Your task to perform on an android device: turn on showing notifications on the lock screen Image 0: 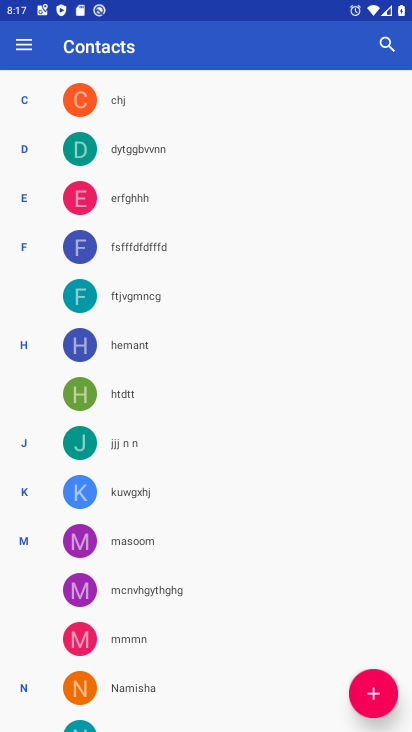
Step 0: press home button
Your task to perform on an android device: turn on showing notifications on the lock screen Image 1: 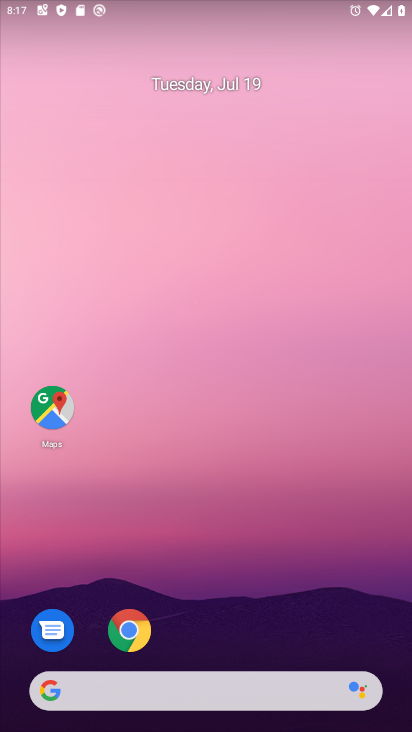
Step 1: drag from (177, 566) to (228, 182)
Your task to perform on an android device: turn on showing notifications on the lock screen Image 2: 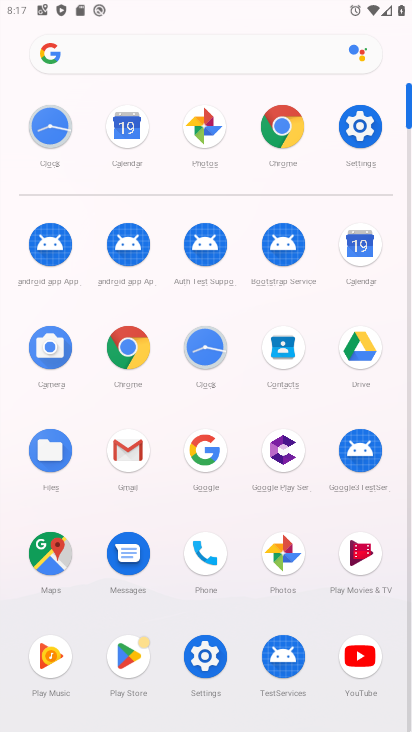
Step 2: click (355, 138)
Your task to perform on an android device: turn on showing notifications on the lock screen Image 3: 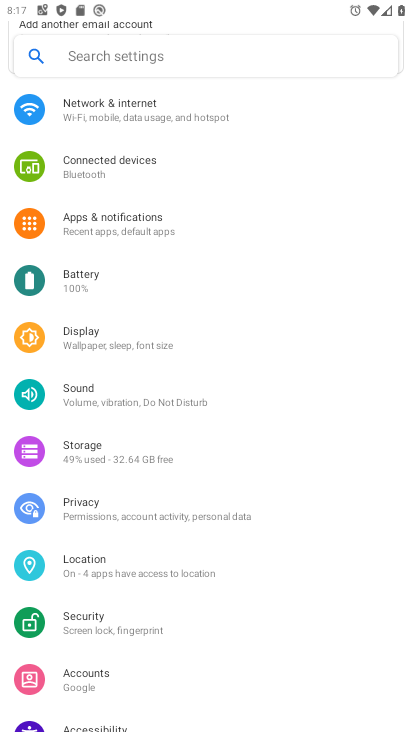
Step 3: click (108, 218)
Your task to perform on an android device: turn on showing notifications on the lock screen Image 4: 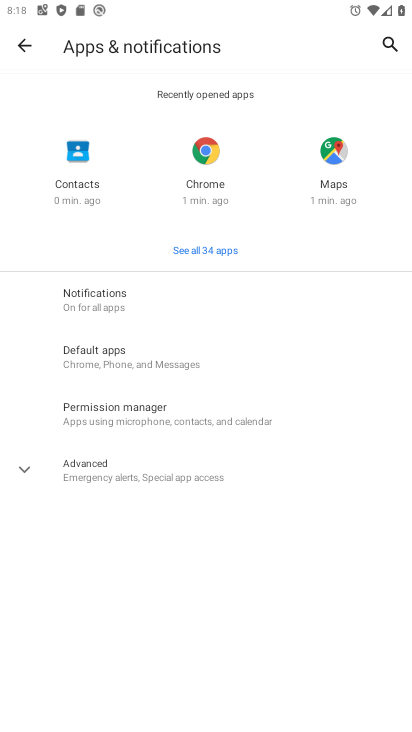
Step 4: click (108, 301)
Your task to perform on an android device: turn on showing notifications on the lock screen Image 5: 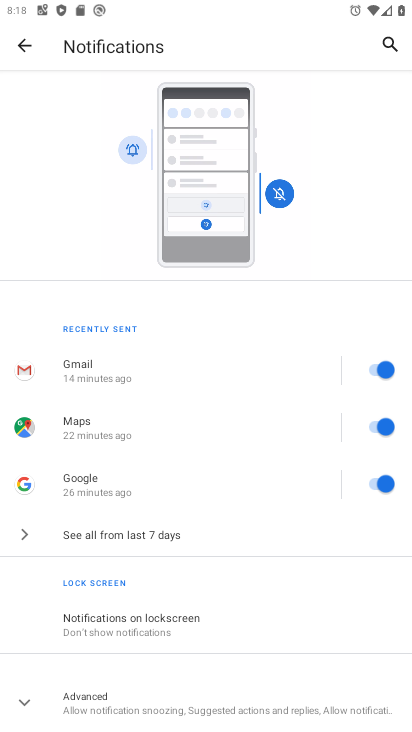
Step 5: click (116, 626)
Your task to perform on an android device: turn on showing notifications on the lock screen Image 6: 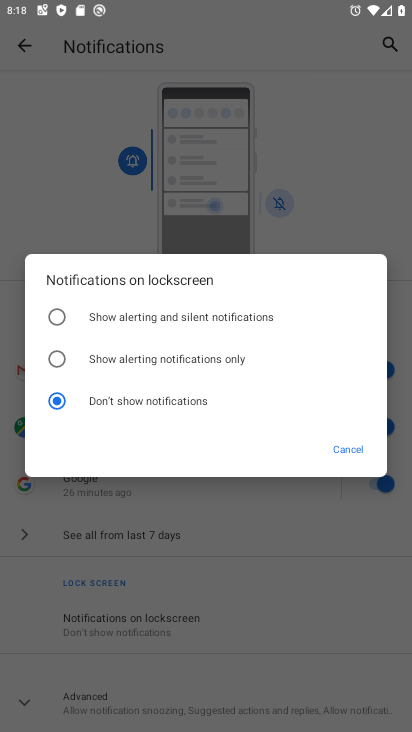
Step 6: click (58, 313)
Your task to perform on an android device: turn on showing notifications on the lock screen Image 7: 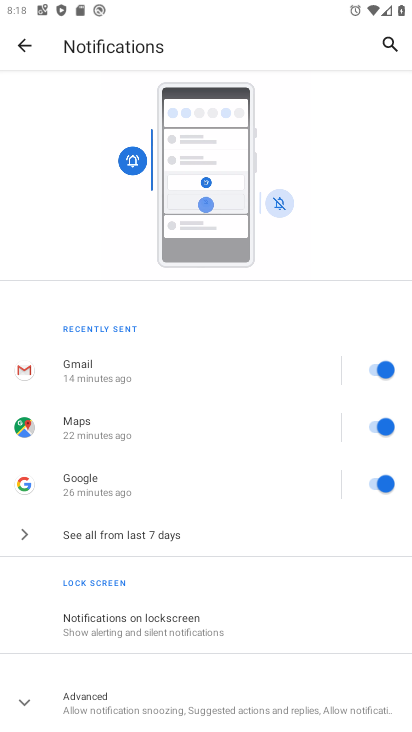
Step 7: task complete